Your task to perform on an android device: allow cookies in the chrome app Image 0: 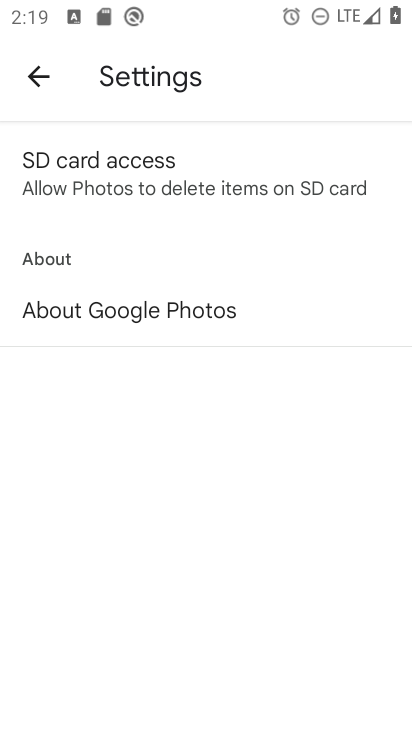
Step 0: press home button
Your task to perform on an android device: allow cookies in the chrome app Image 1: 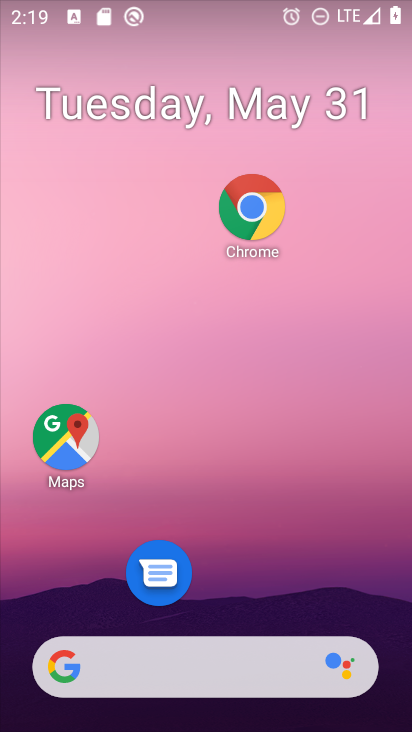
Step 1: drag from (219, 572) to (215, 187)
Your task to perform on an android device: allow cookies in the chrome app Image 2: 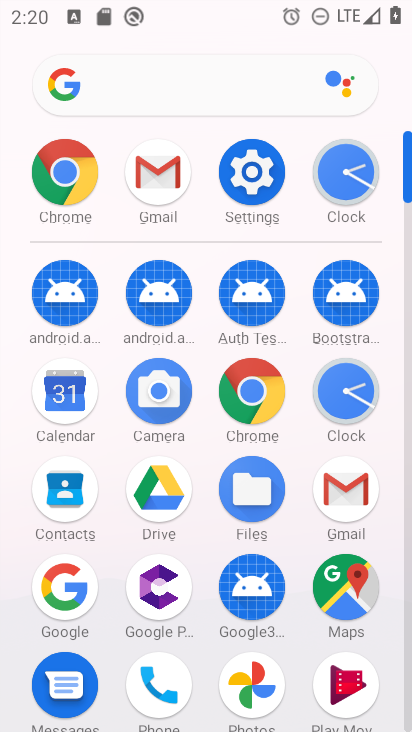
Step 2: click (256, 405)
Your task to perform on an android device: allow cookies in the chrome app Image 3: 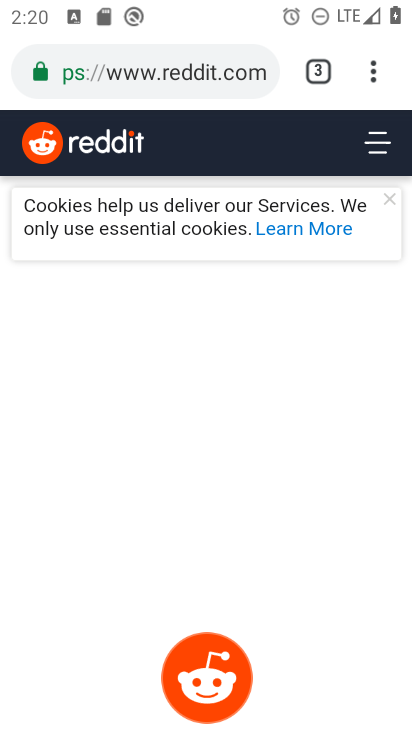
Step 3: click (382, 71)
Your task to perform on an android device: allow cookies in the chrome app Image 4: 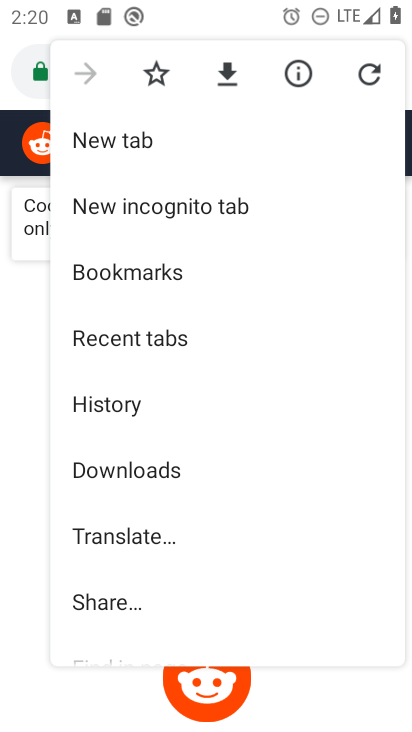
Step 4: drag from (209, 532) to (206, 18)
Your task to perform on an android device: allow cookies in the chrome app Image 5: 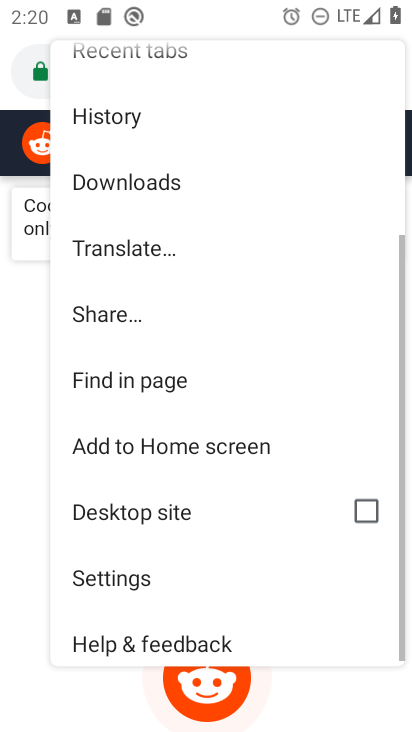
Step 5: click (116, 571)
Your task to perform on an android device: allow cookies in the chrome app Image 6: 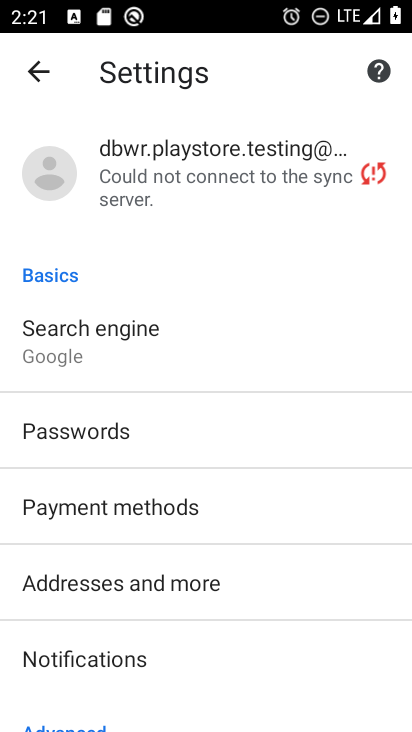
Step 6: drag from (178, 575) to (128, 278)
Your task to perform on an android device: allow cookies in the chrome app Image 7: 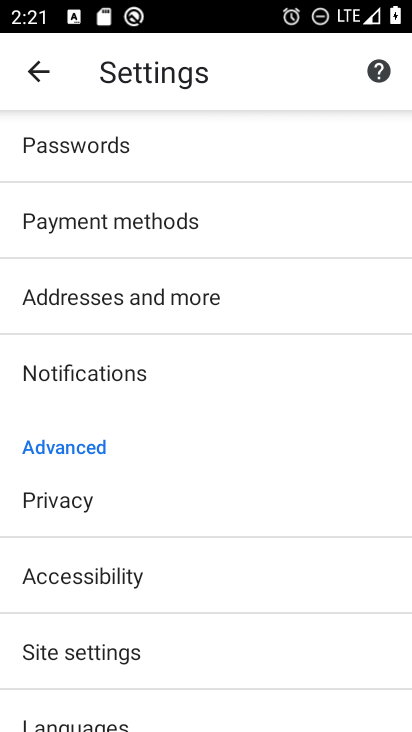
Step 7: click (113, 656)
Your task to perform on an android device: allow cookies in the chrome app Image 8: 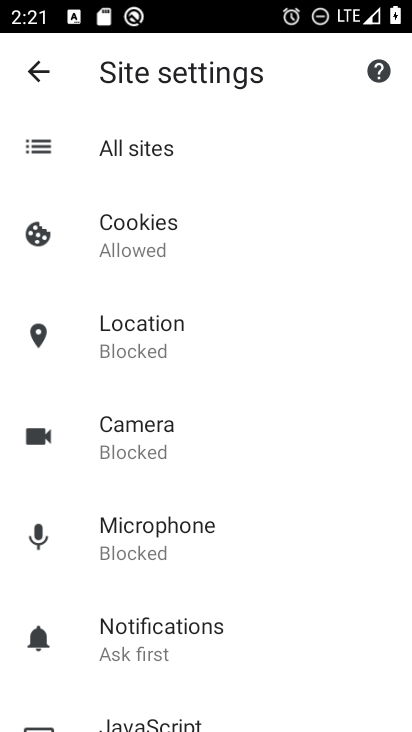
Step 8: click (150, 245)
Your task to perform on an android device: allow cookies in the chrome app Image 9: 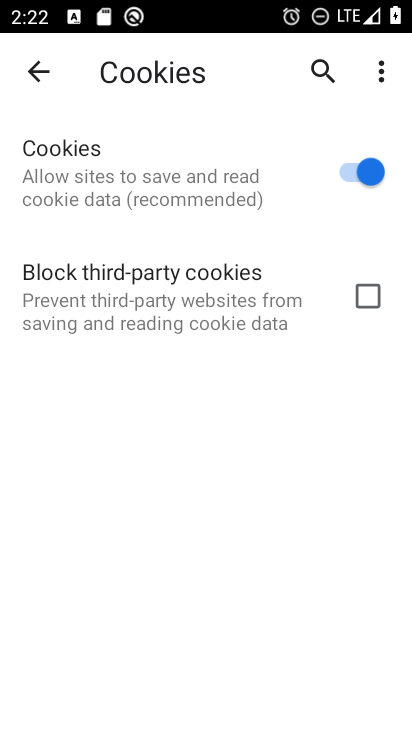
Step 9: task complete